Your task to perform on an android device: Search for sushi restaurants on Maps Image 0: 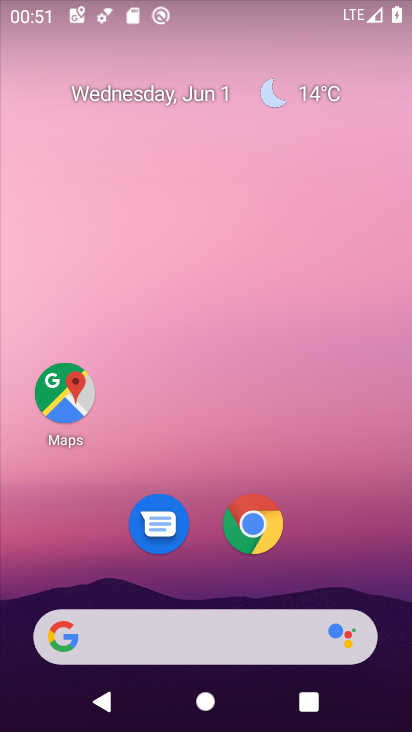
Step 0: click (66, 392)
Your task to perform on an android device: Search for sushi restaurants on Maps Image 1: 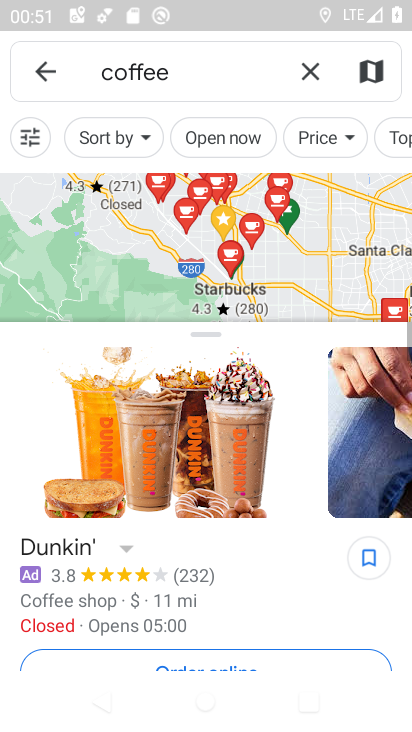
Step 1: click (300, 67)
Your task to perform on an android device: Search for sushi restaurants on Maps Image 2: 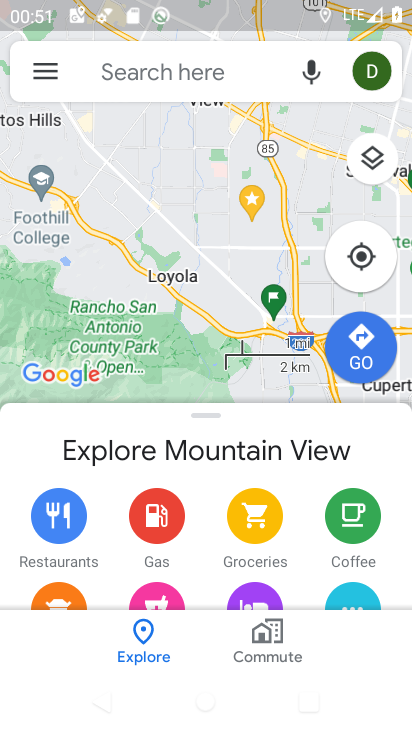
Step 2: click (212, 67)
Your task to perform on an android device: Search for sushi restaurants on Maps Image 3: 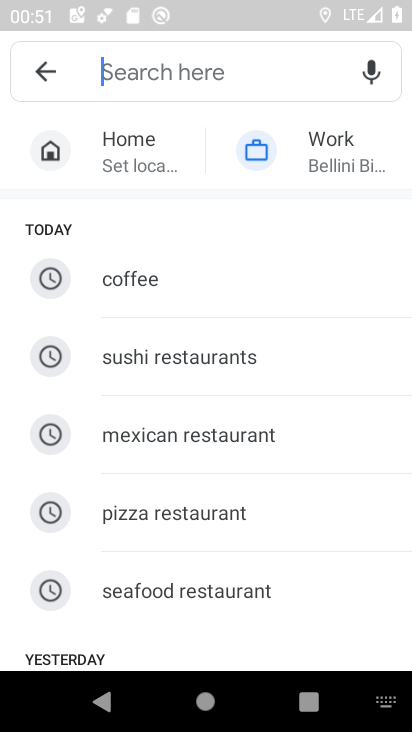
Step 3: click (214, 355)
Your task to perform on an android device: Search for sushi restaurants on Maps Image 4: 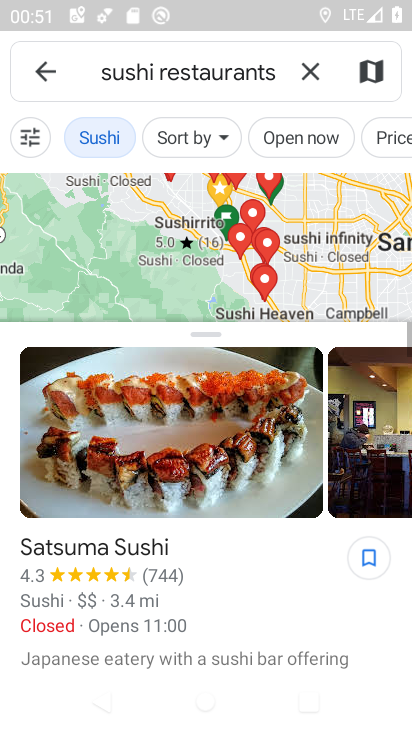
Step 4: task complete